Your task to perform on an android device: check storage Image 0: 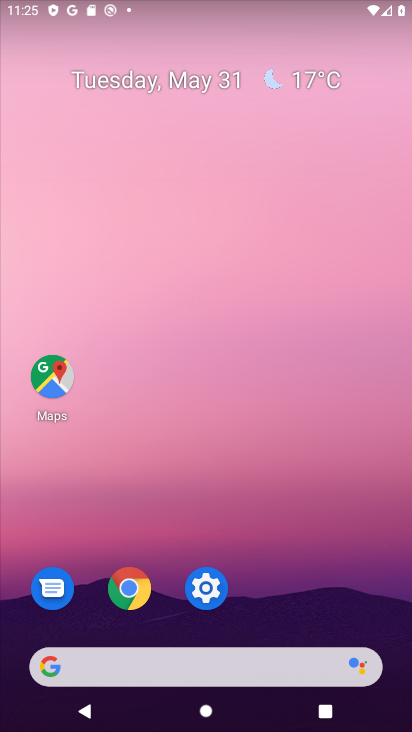
Step 0: press home button
Your task to perform on an android device: check storage Image 1: 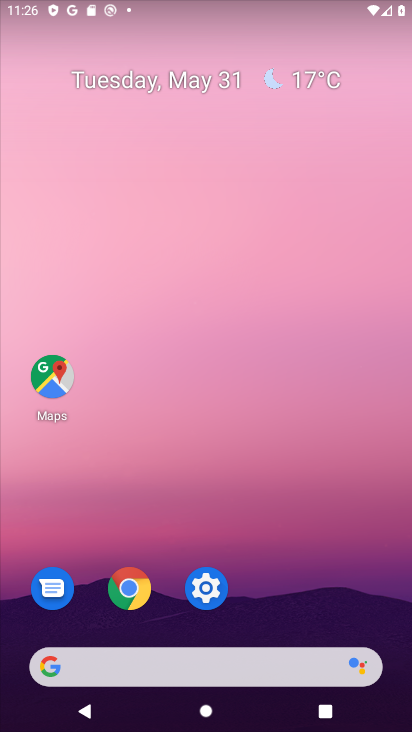
Step 1: click (207, 585)
Your task to perform on an android device: check storage Image 2: 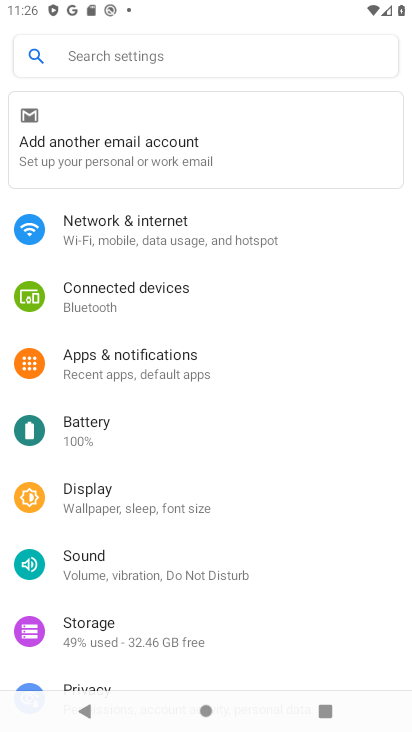
Step 2: click (145, 58)
Your task to perform on an android device: check storage Image 3: 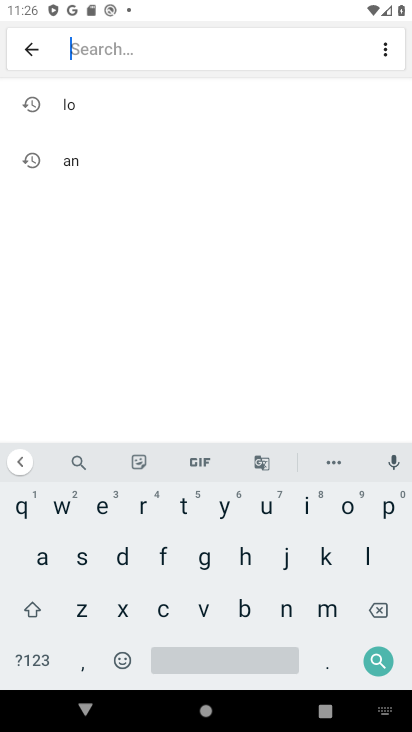
Step 3: click (74, 566)
Your task to perform on an android device: check storage Image 4: 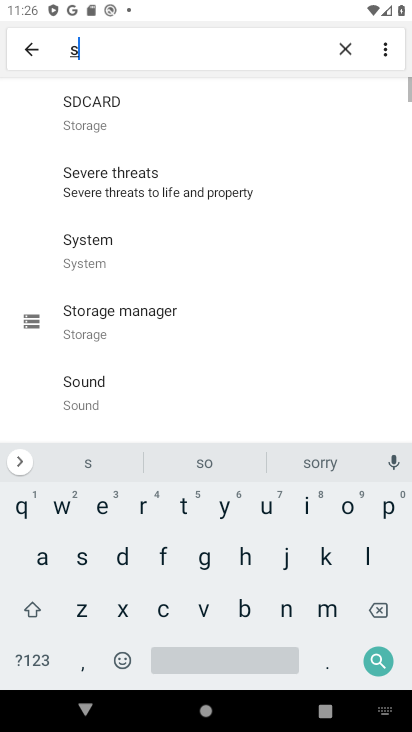
Step 4: click (185, 503)
Your task to perform on an android device: check storage Image 5: 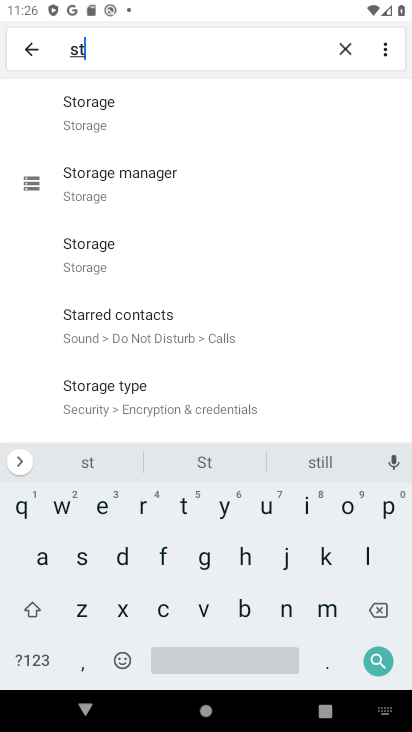
Step 5: click (131, 116)
Your task to perform on an android device: check storage Image 6: 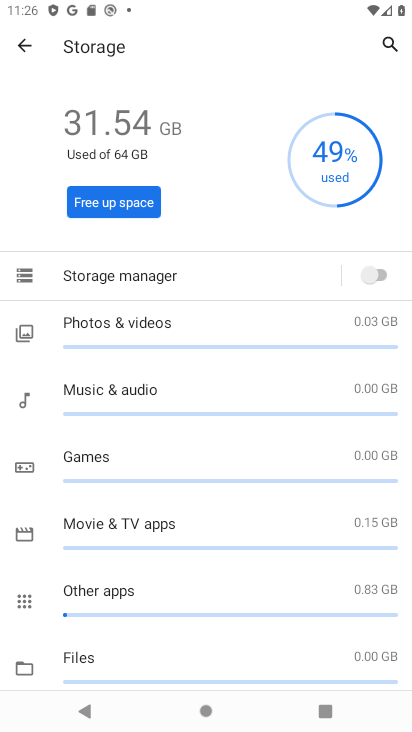
Step 6: task complete